Your task to perform on an android device: open app "Nova Launcher" Image 0: 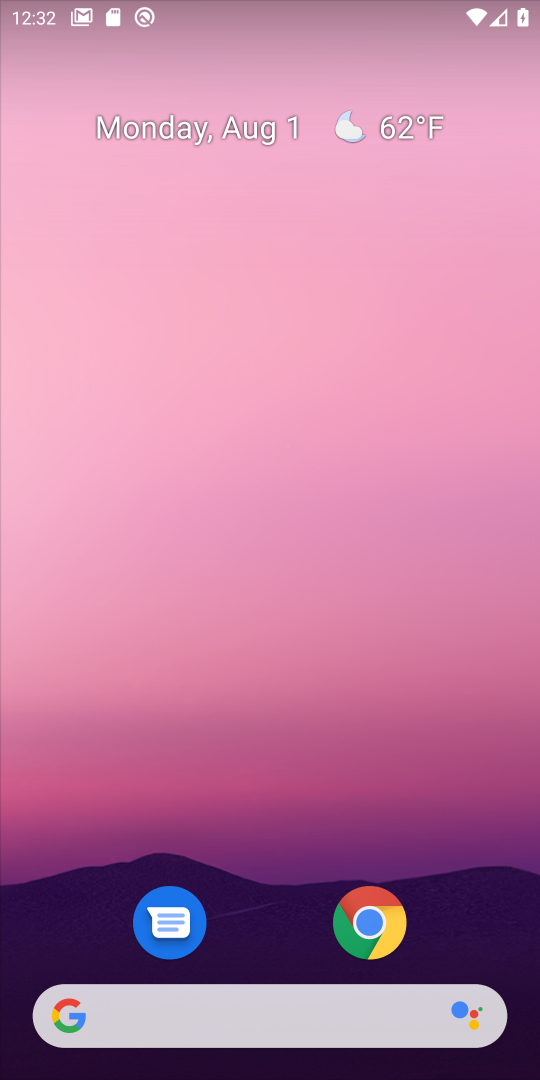
Step 0: drag from (278, 673) to (255, 153)
Your task to perform on an android device: open app "Nova Launcher" Image 1: 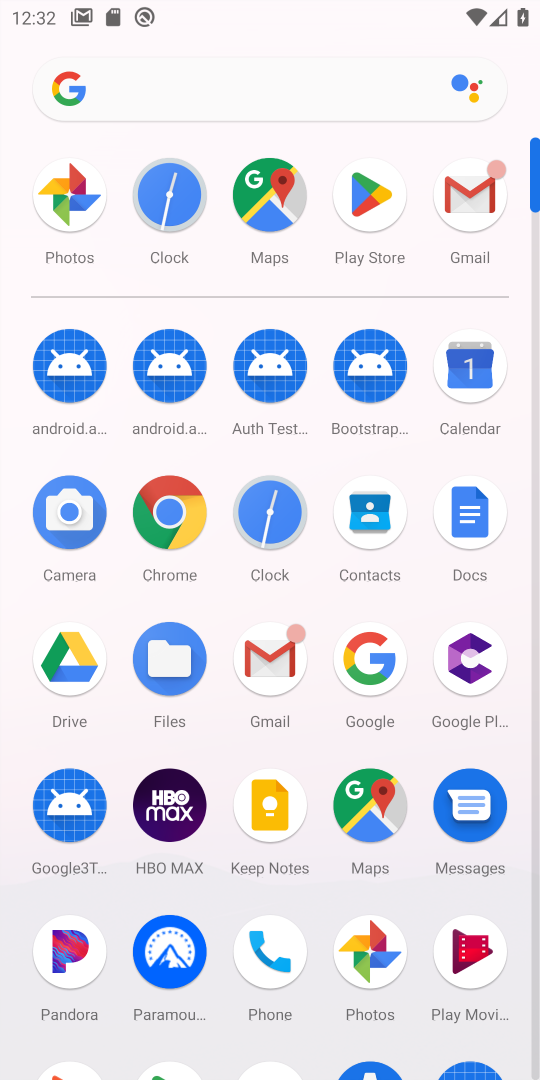
Step 1: click (388, 215)
Your task to perform on an android device: open app "Nova Launcher" Image 2: 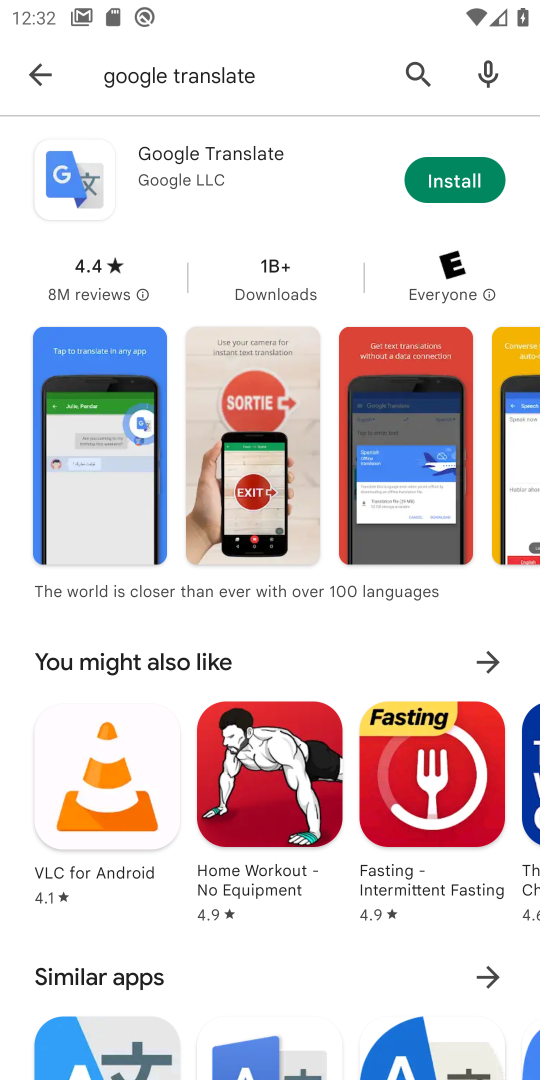
Step 2: type "Nova Launcher"
Your task to perform on an android device: open app "Nova Launcher" Image 3: 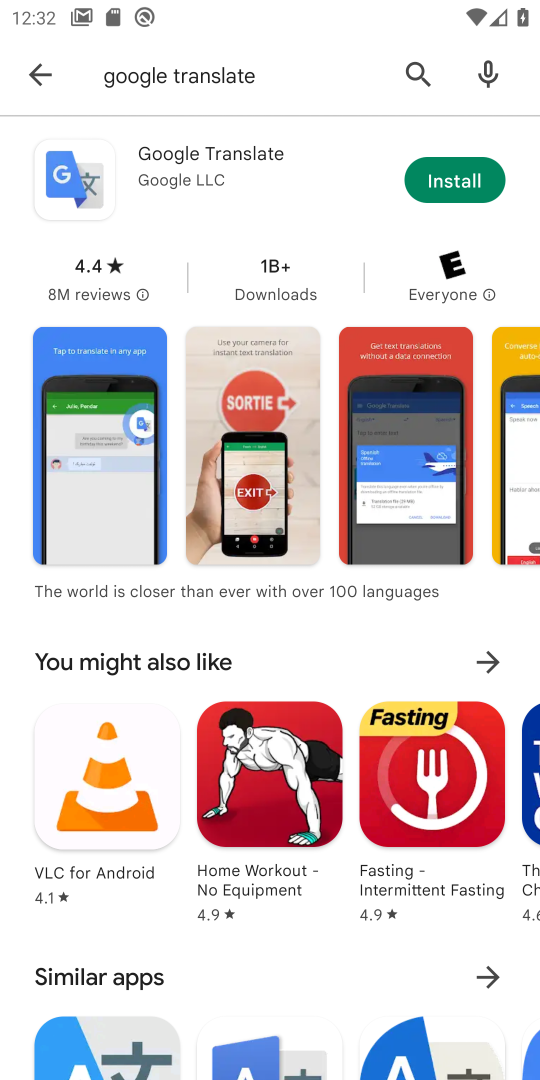
Step 3: click (402, 60)
Your task to perform on an android device: open app "Nova Launcher" Image 4: 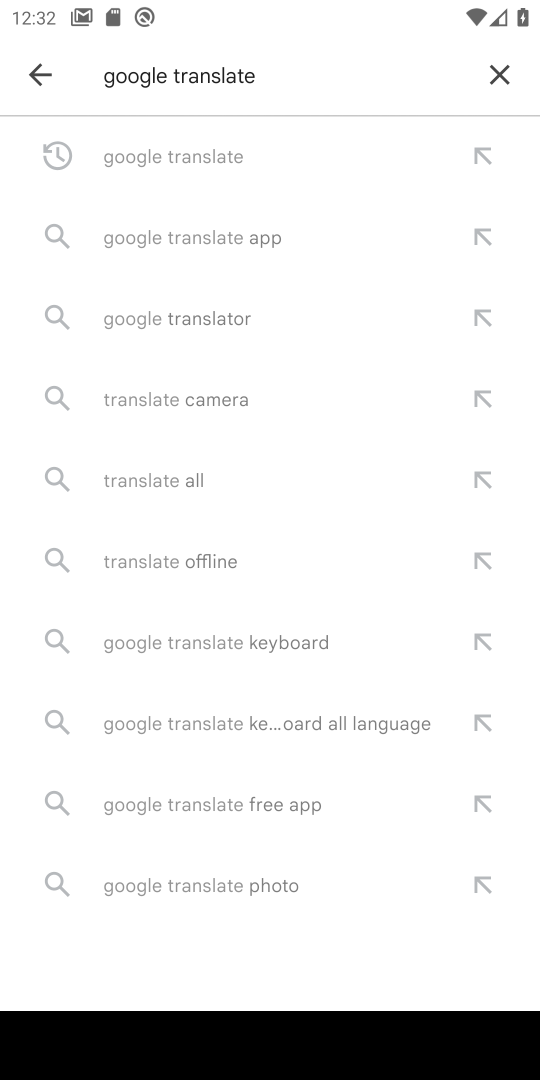
Step 4: click (501, 70)
Your task to perform on an android device: open app "Nova Launcher" Image 5: 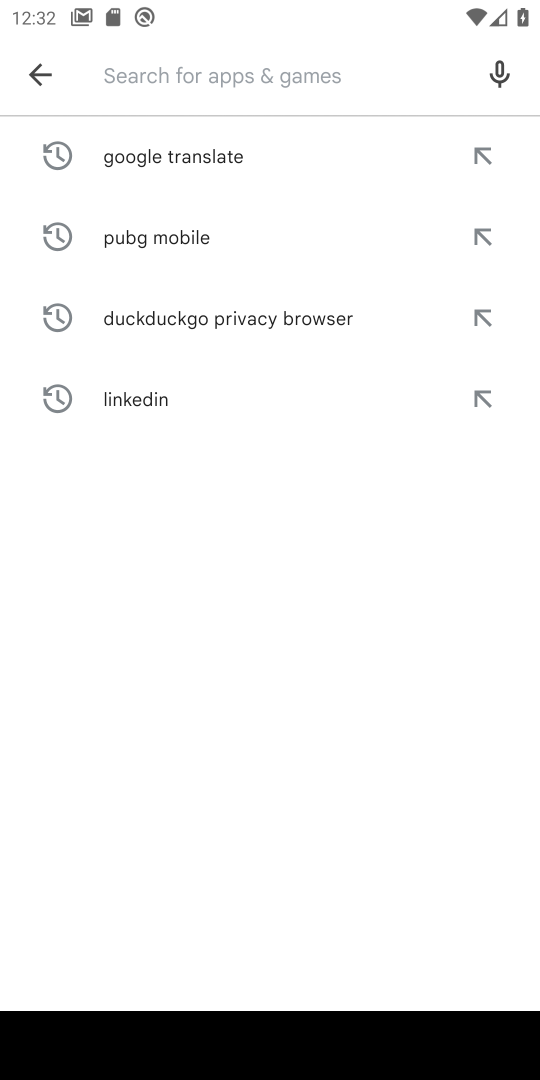
Step 5: type "Nova Launcher"
Your task to perform on an android device: open app "Nova Launcher" Image 6: 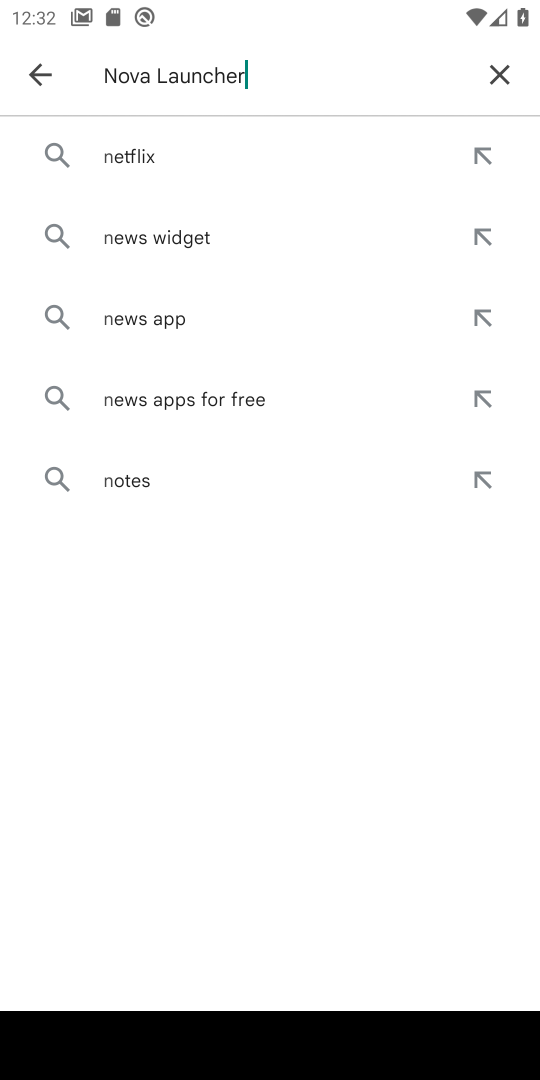
Step 6: type ""
Your task to perform on an android device: open app "Nova Launcher" Image 7: 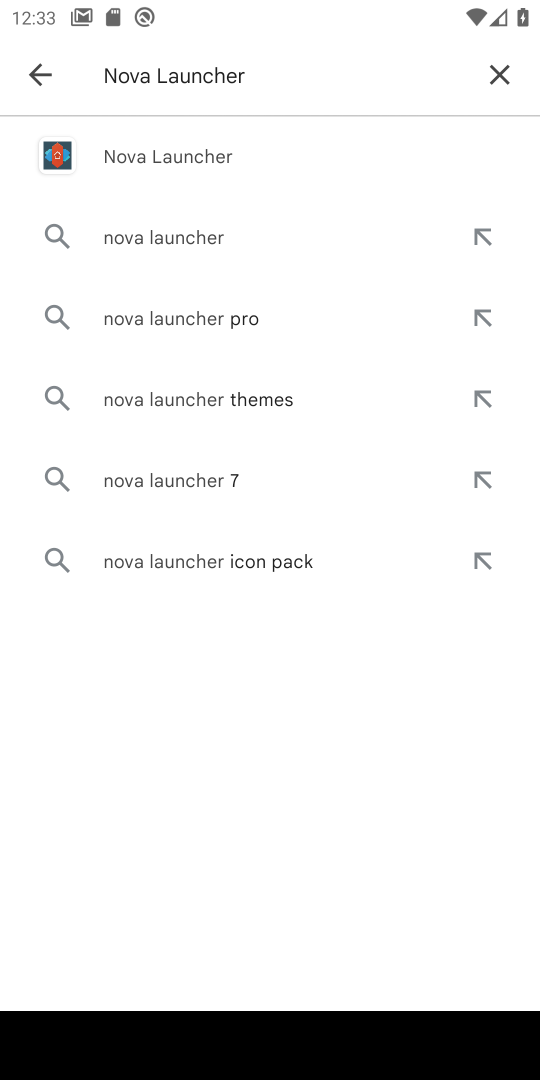
Step 7: click (179, 160)
Your task to perform on an android device: open app "Nova Launcher" Image 8: 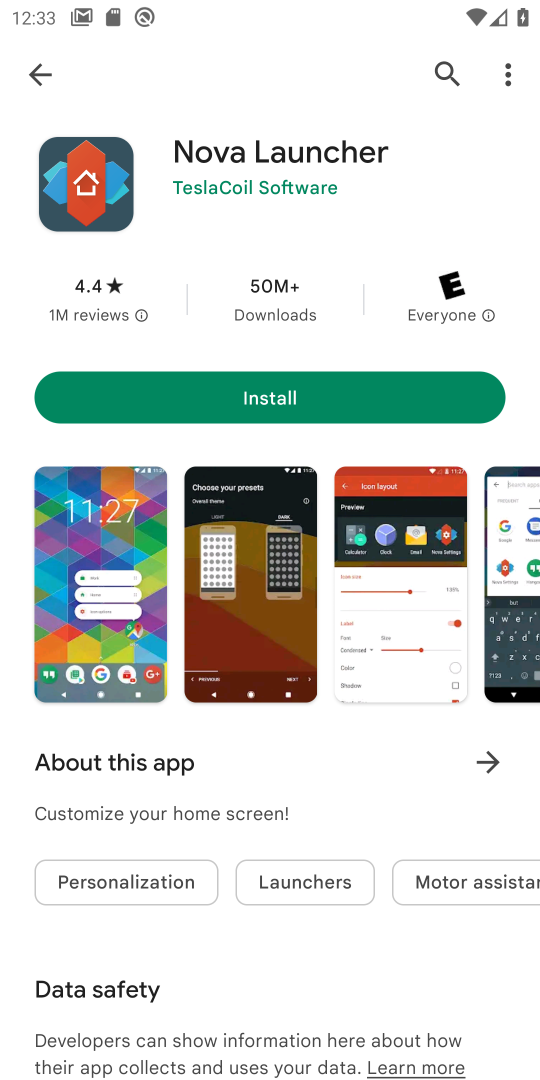
Step 8: task complete